Your task to perform on an android device: Go to privacy settings Image 0: 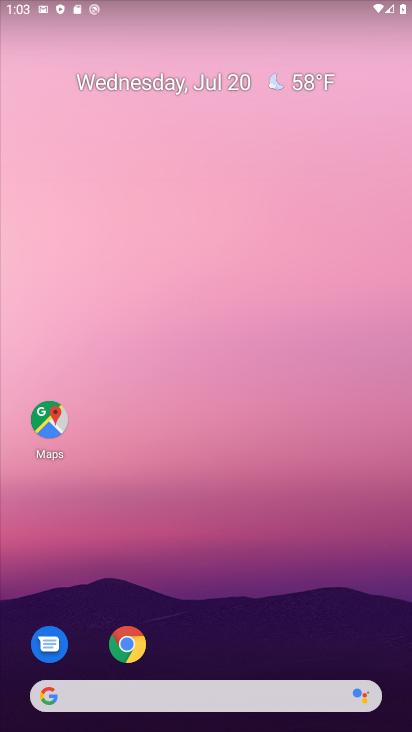
Step 0: click (129, 644)
Your task to perform on an android device: Go to privacy settings Image 1: 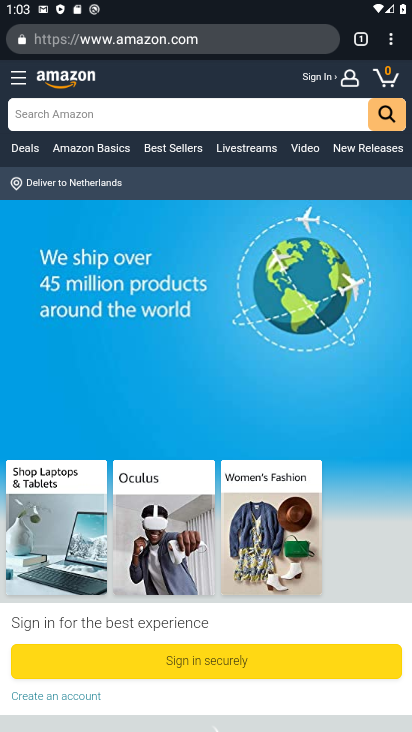
Step 1: click (389, 39)
Your task to perform on an android device: Go to privacy settings Image 2: 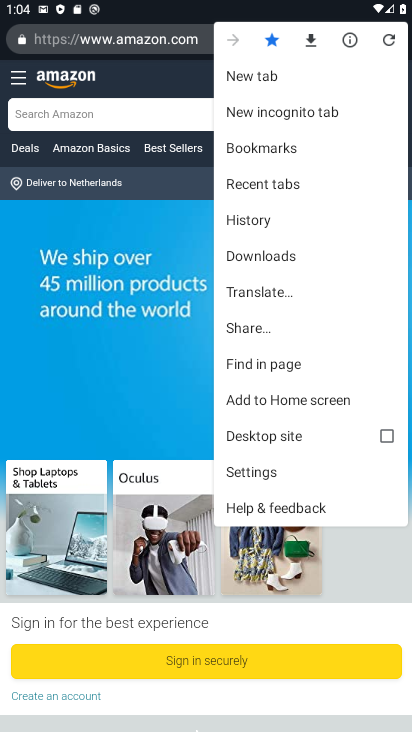
Step 2: click (261, 478)
Your task to perform on an android device: Go to privacy settings Image 3: 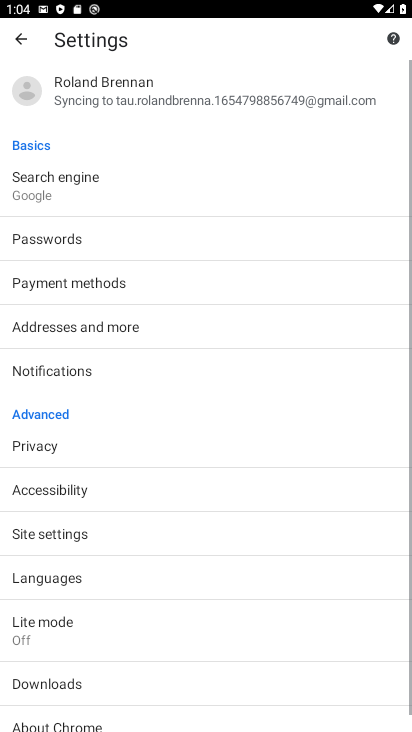
Step 3: click (65, 444)
Your task to perform on an android device: Go to privacy settings Image 4: 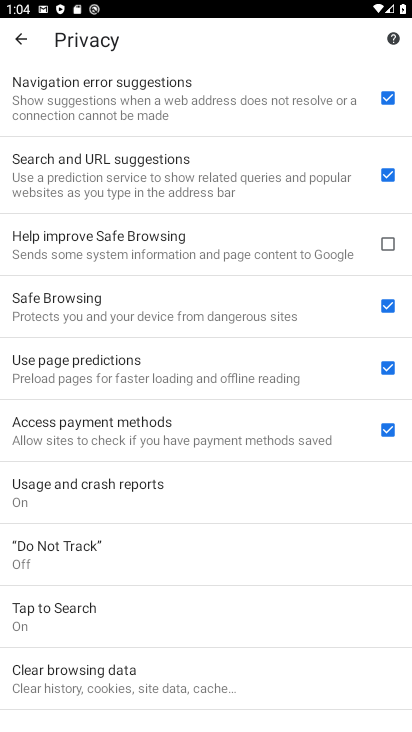
Step 4: task complete